Your task to perform on an android device: Open the phone app and click the voicemail tab. Image 0: 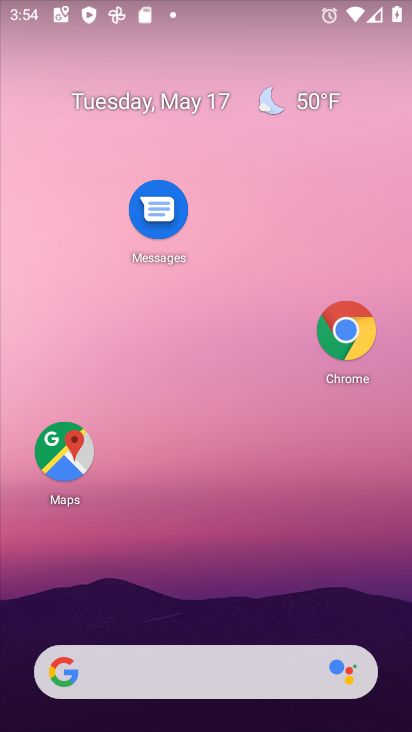
Step 0: drag from (222, 612) to (249, 98)
Your task to perform on an android device: Open the phone app and click the voicemail tab. Image 1: 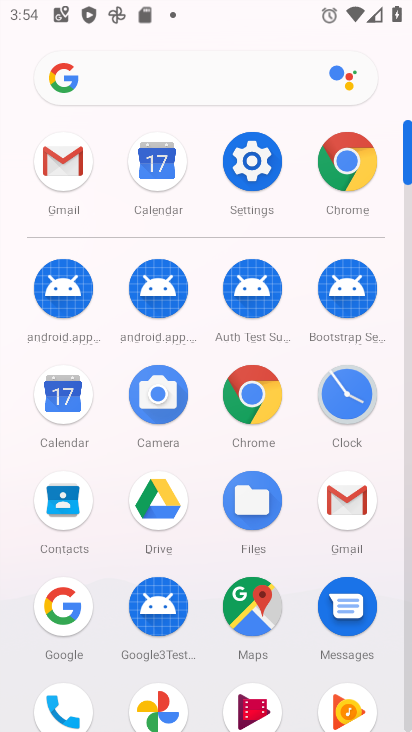
Step 1: click (409, 726)
Your task to perform on an android device: Open the phone app and click the voicemail tab. Image 2: 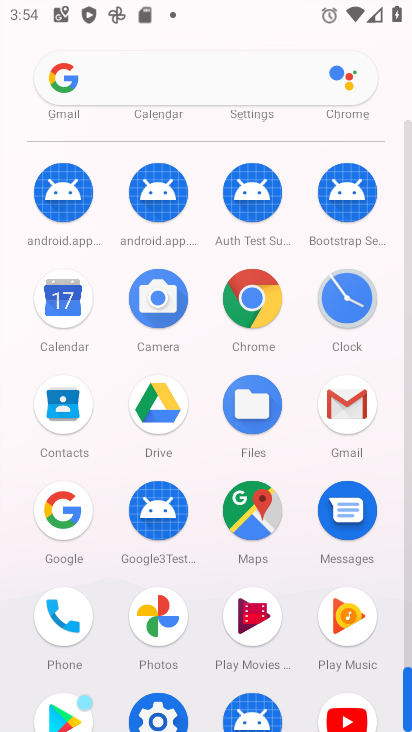
Step 2: click (52, 627)
Your task to perform on an android device: Open the phone app and click the voicemail tab. Image 3: 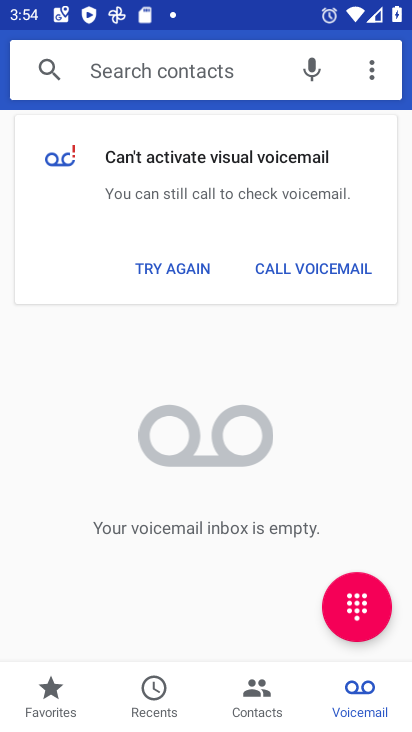
Step 3: task complete